Your task to perform on an android device: Open Google Maps Image 0: 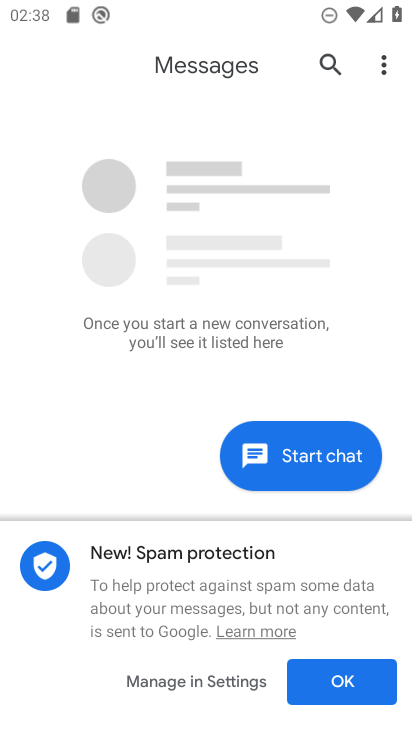
Step 0: press home button
Your task to perform on an android device: Open Google Maps Image 1: 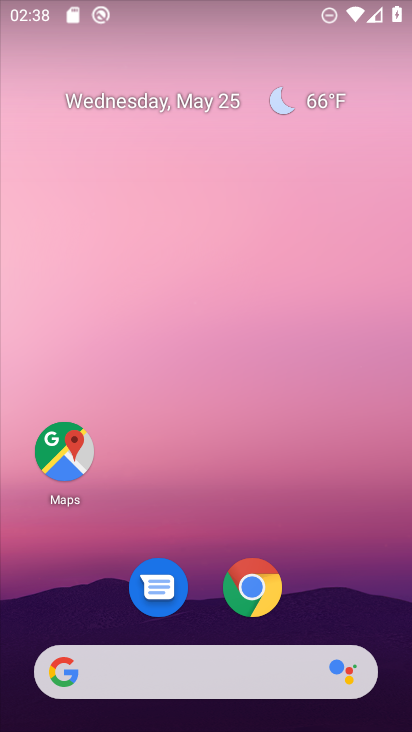
Step 1: drag from (387, 593) to (370, 231)
Your task to perform on an android device: Open Google Maps Image 2: 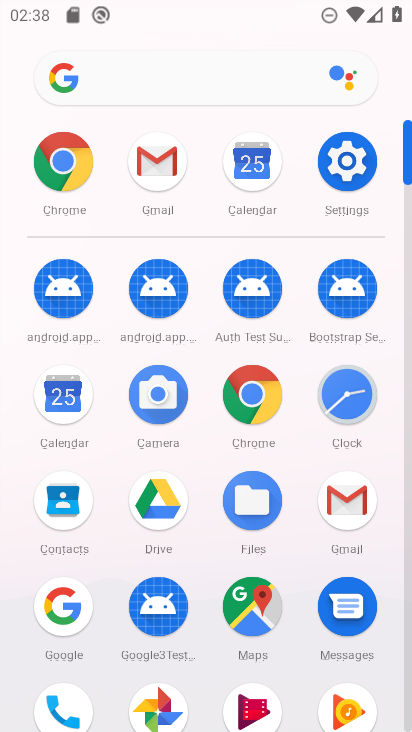
Step 2: click (267, 613)
Your task to perform on an android device: Open Google Maps Image 3: 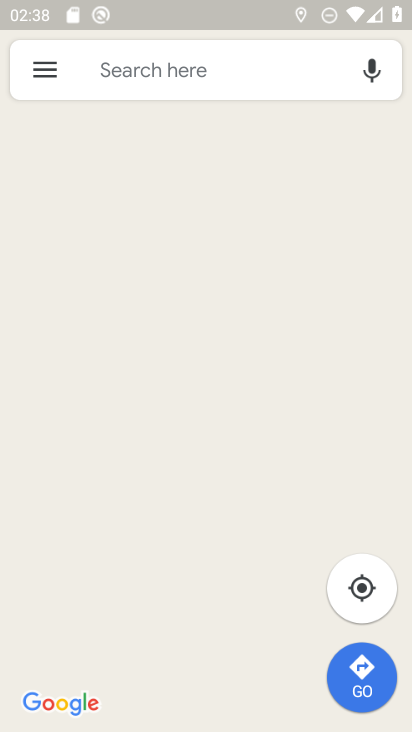
Step 3: task complete